Your task to perform on an android device: toggle priority inbox in the gmail app Image 0: 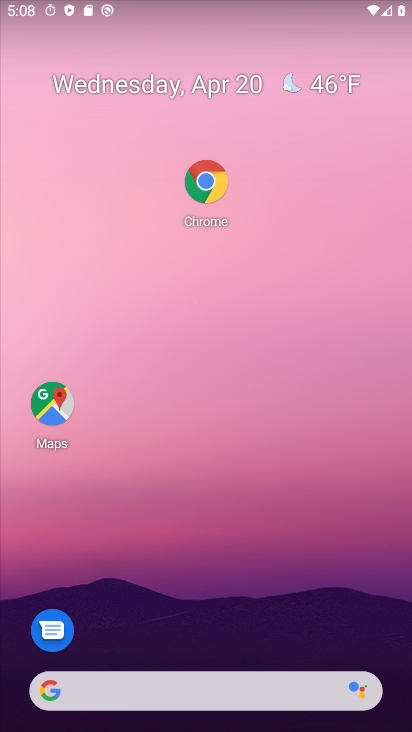
Step 0: drag from (197, 583) to (268, 346)
Your task to perform on an android device: toggle priority inbox in the gmail app Image 1: 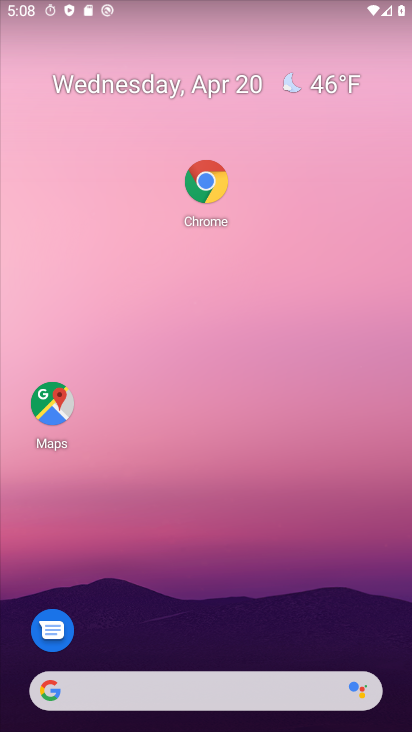
Step 1: click (285, 330)
Your task to perform on an android device: toggle priority inbox in the gmail app Image 2: 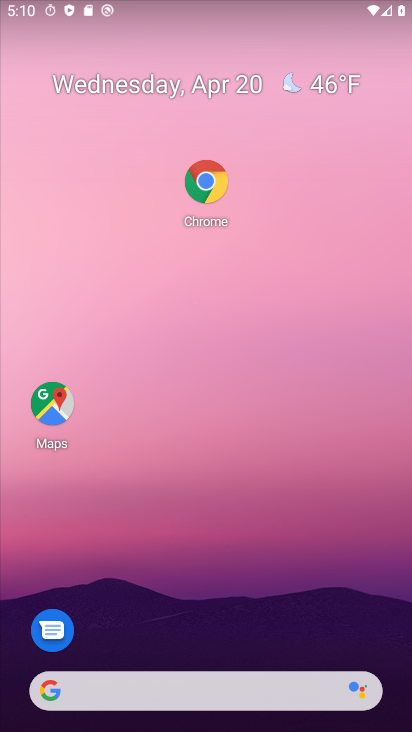
Step 2: drag from (156, 659) to (261, 236)
Your task to perform on an android device: toggle priority inbox in the gmail app Image 3: 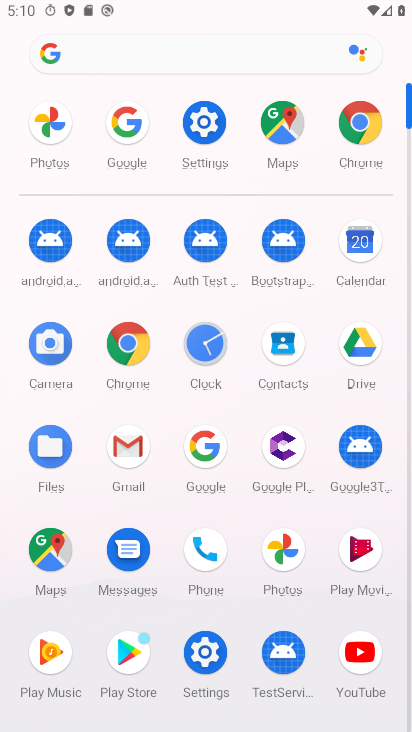
Step 3: click (133, 448)
Your task to perform on an android device: toggle priority inbox in the gmail app Image 4: 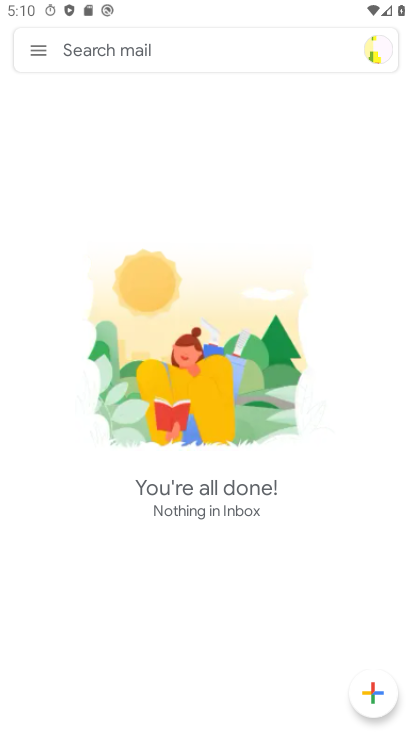
Step 4: click (41, 47)
Your task to perform on an android device: toggle priority inbox in the gmail app Image 5: 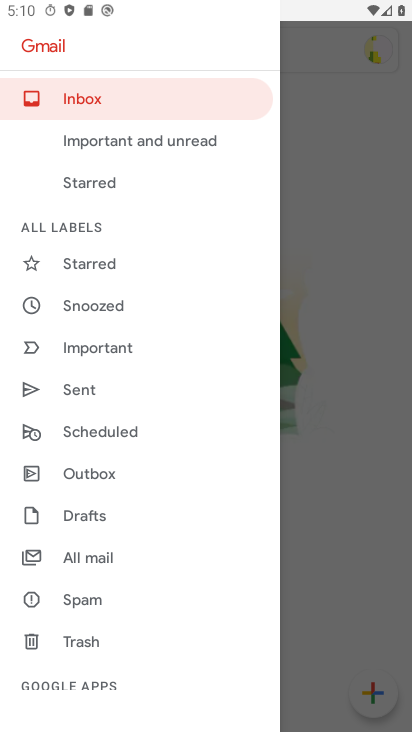
Step 5: drag from (68, 665) to (139, 232)
Your task to perform on an android device: toggle priority inbox in the gmail app Image 6: 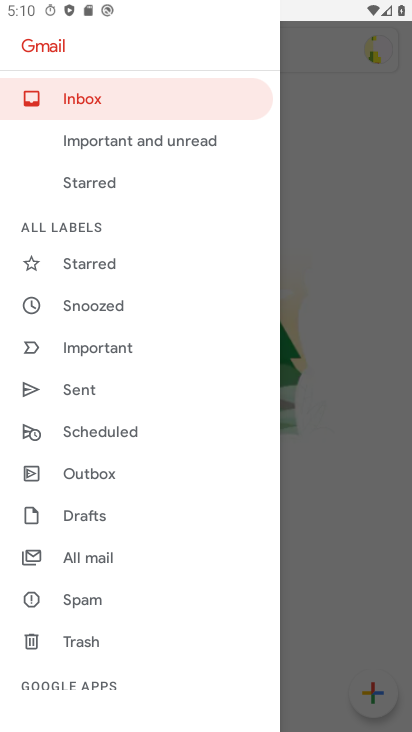
Step 6: drag from (111, 697) to (200, 402)
Your task to perform on an android device: toggle priority inbox in the gmail app Image 7: 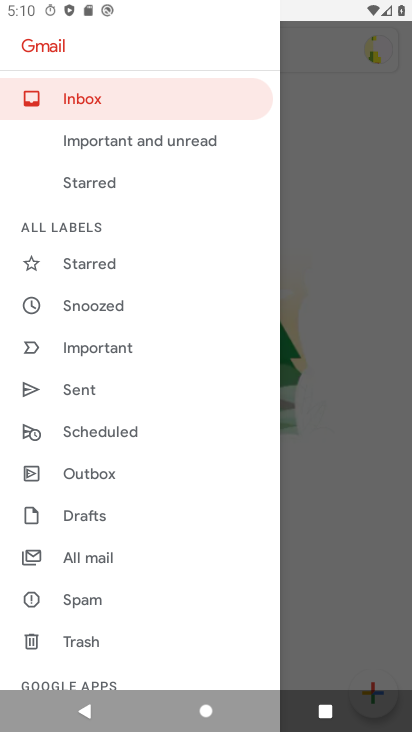
Step 7: drag from (139, 625) to (210, 284)
Your task to perform on an android device: toggle priority inbox in the gmail app Image 8: 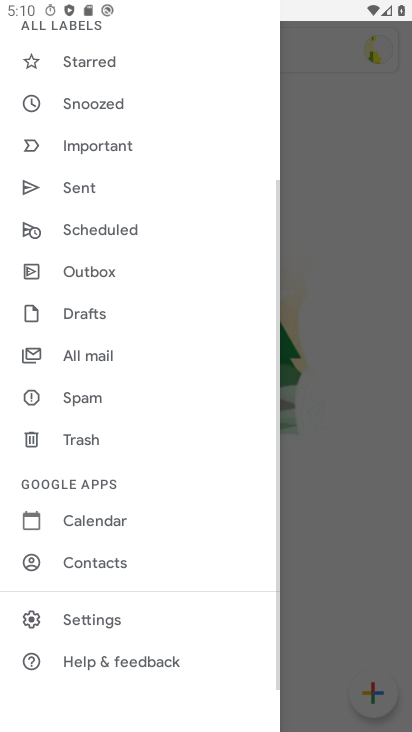
Step 8: click (97, 615)
Your task to perform on an android device: toggle priority inbox in the gmail app Image 9: 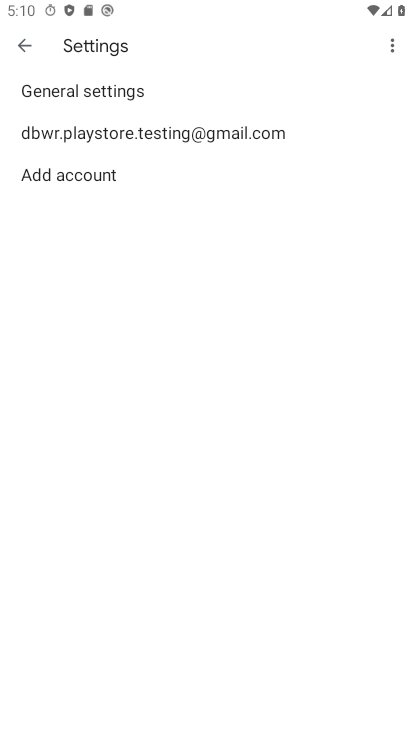
Step 9: click (87, 136)
Your task to perform on an android device: toggle priority inbox in the gmail app Image 10: 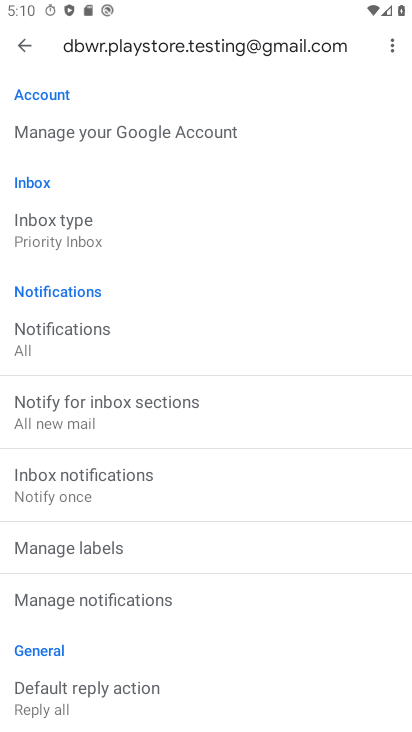
Step 10: click (47, 227)
Your task to perform on an android device: toggle priority inbox in the gmail app Image 11: 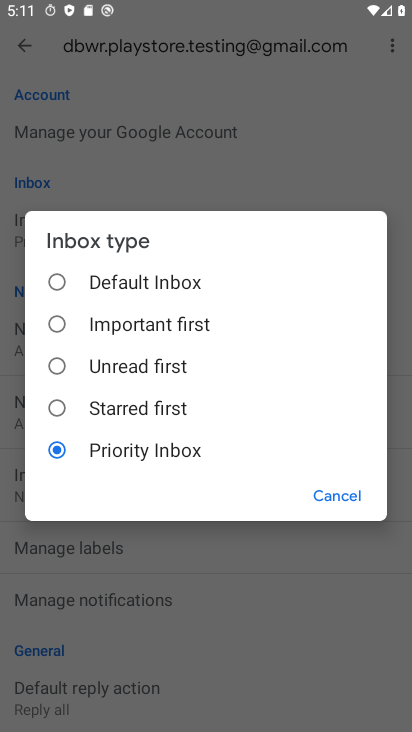
Step 11: click (62, 314)
Your task to perform on an android device: toggle priority inbox in the gmail app Image 12: 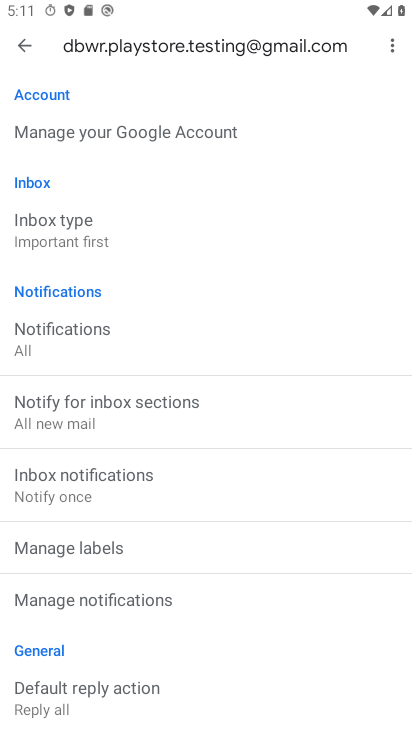
Step 12: task complete